Your task to perform on an android device: empty trash in the gmail app Image 0: 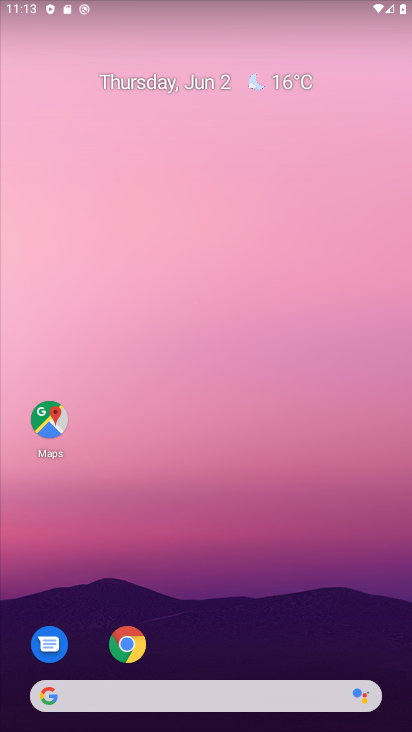
Step 0: drag from (214, 566) to (230, 220)
Your task to perform on an android device: empty trash in the gmail app Image 1: 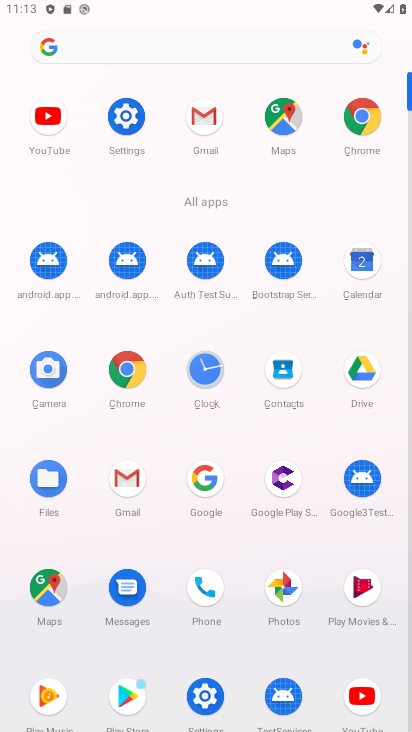
Step 1: click (114, 484)
Your task to perform on an android device: empty trash in the gmail app Image 2: 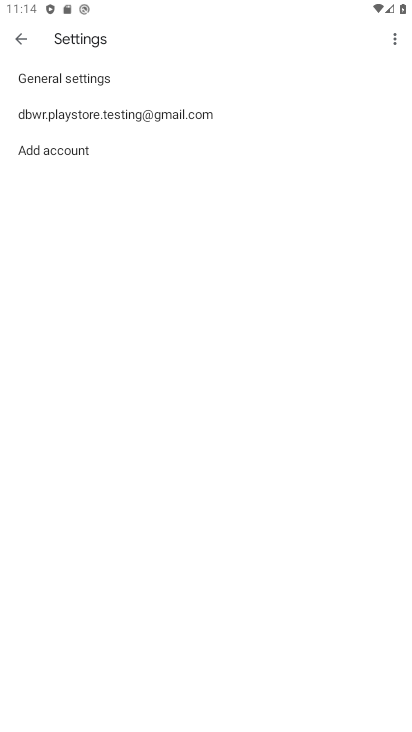
Step 2: click (22, 37)
Your task to perform on an android device: empty trash in the gmail app Image 3: 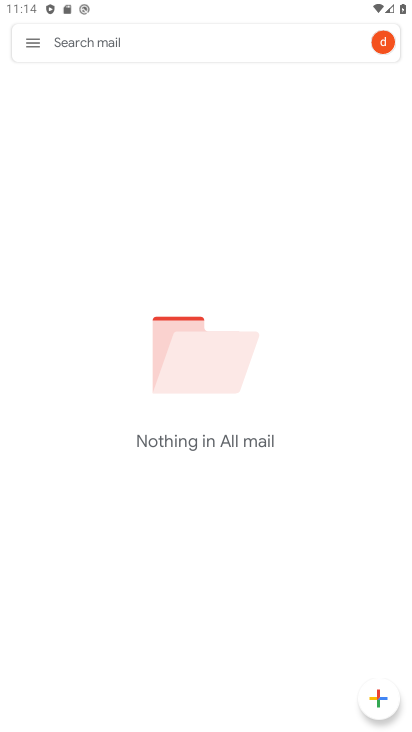
Step 3: click (27, 51)
Your task to perform on an android device: empty trash in the gmail app Image 4: 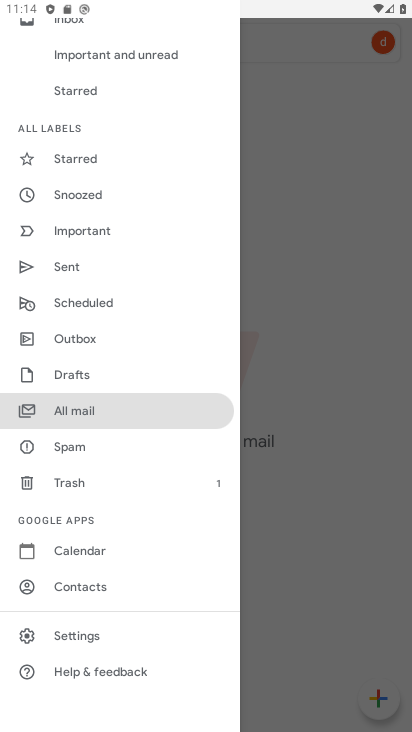
Step 4: drag from (94, 165) to (96, 542)
Your task to perform on an android device: empty trash in the gmail app Image 5: 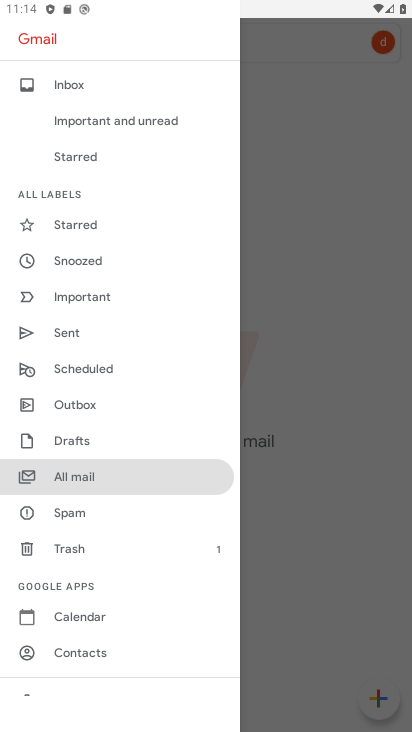
Step 5: click (79, 557)
Your task to perform on an android device: empty trash in the gmail app Image 6: 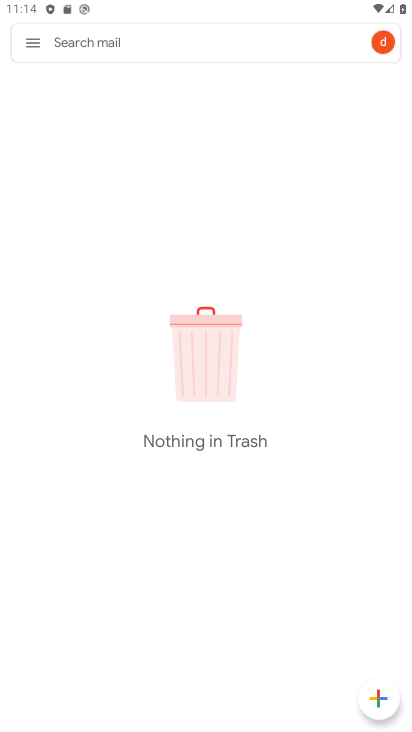
Step 6: task complete